Your task to perform on an android device: install app "Flipkart Online Shopping App" Image 0: 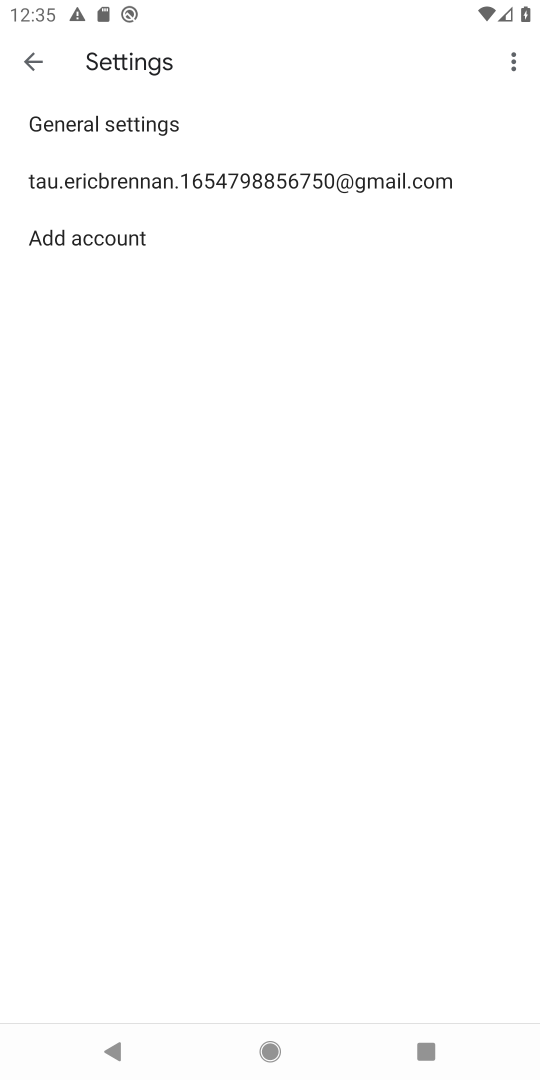
Step 0: press home button
Your task to perform on an android device: install app "Flipkart Online Shopping App" Image 1: 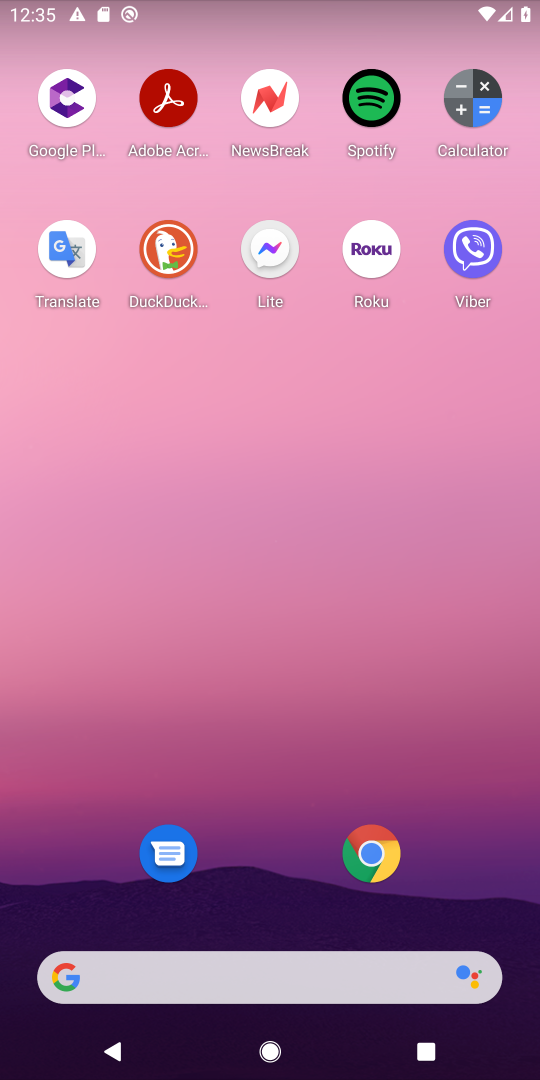
Step 1: drag from (337, 963) to (415, 34)
Your task to perform on an android device: install app "Flipkart Online Shopping App" Image 2: 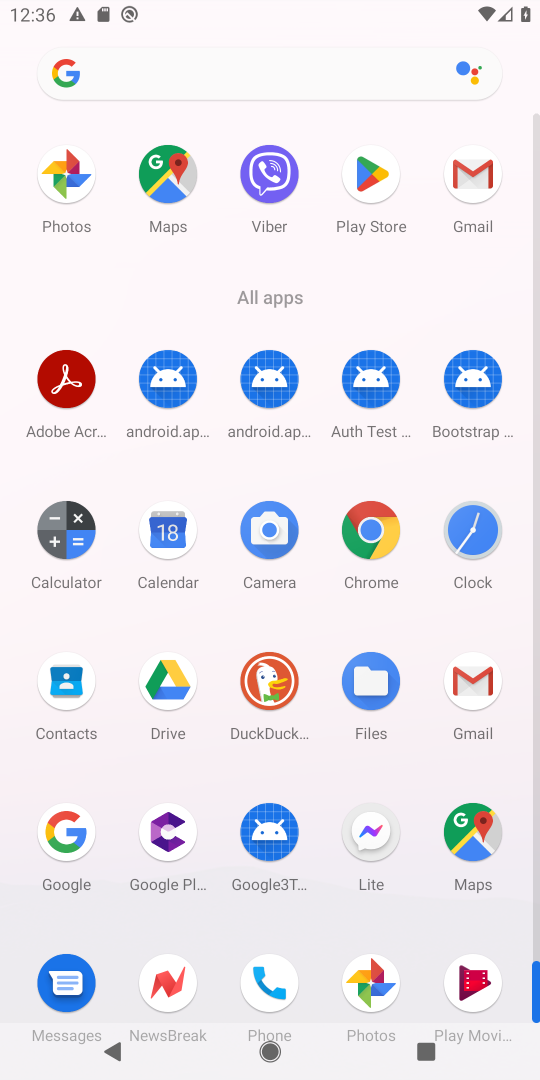
Step 2: click (388, 198)
Your task to perform on an android device: install app "Flipkart Online Shopping App" Image 3: 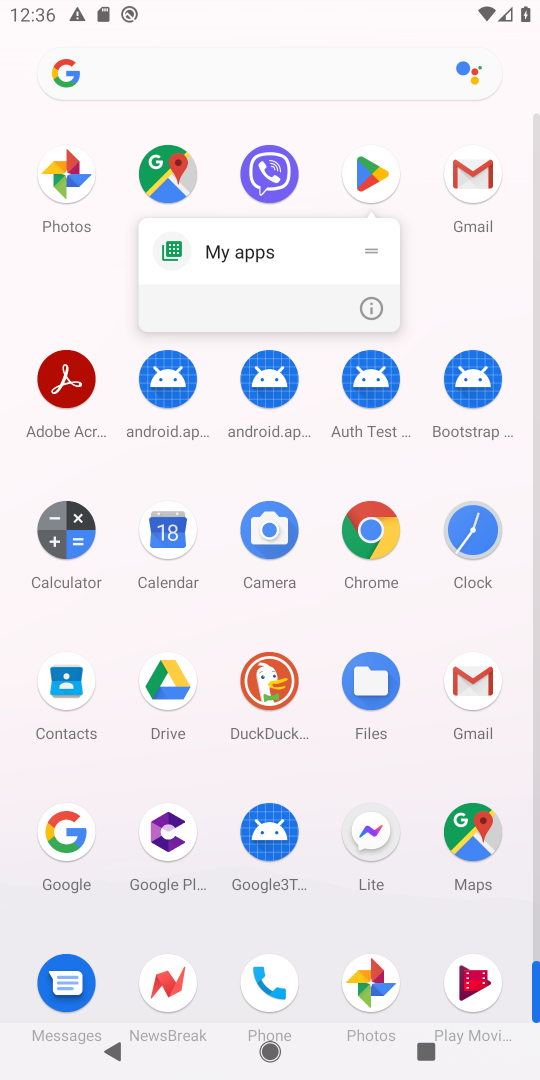
Step 3: click (392, 162)
Your task to perform on an android device: install app "Flipkart Online Shopping App" Image 4: 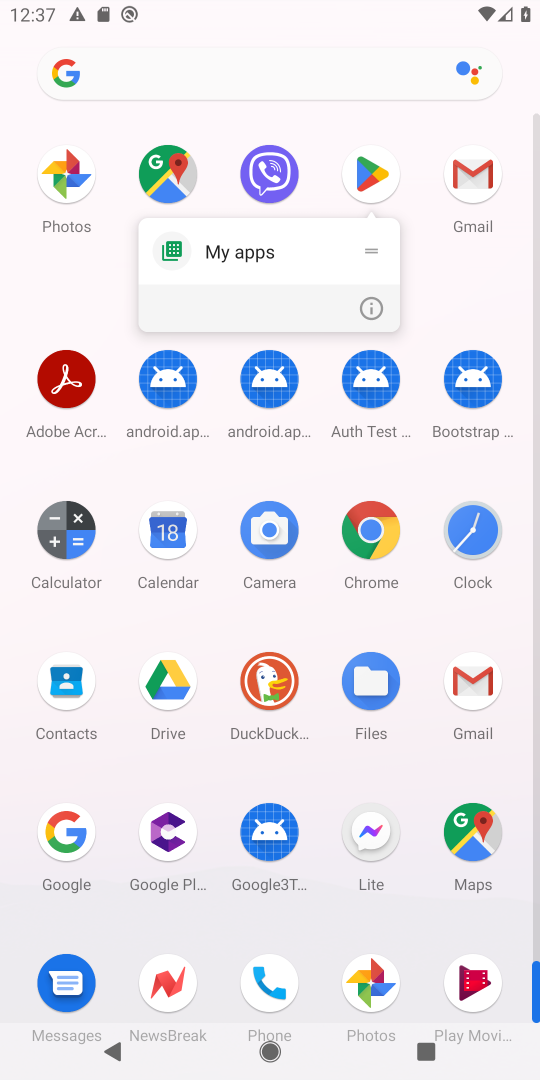
Step 4: click (373, 178)
Your task to perform on an android device: install app "Flipkart Online Shopping App" Image 5: 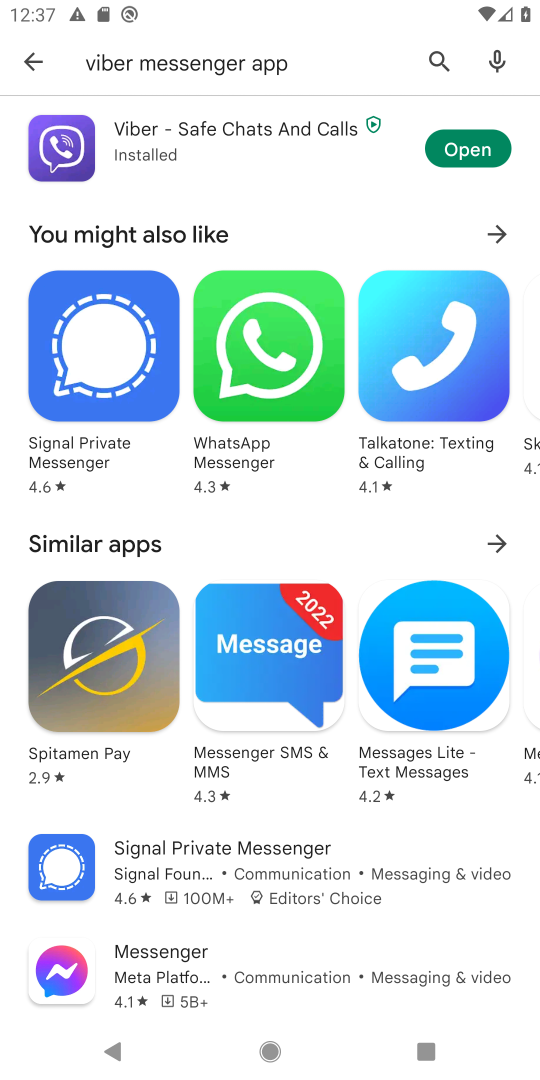
Step 5: click (43, 55)
Your task to perform on an android device: install app "Flipkart Online Shopping App" Image 6: 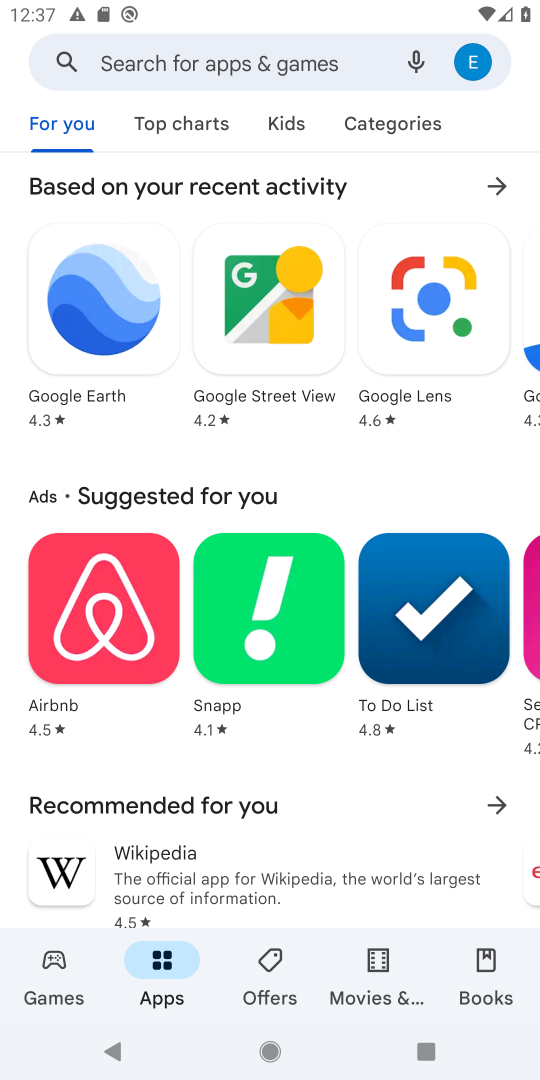
Step 6: click (217, 61)
Your task to perform on an android device: install app "Flipkart Online Shopping App" Image 7: 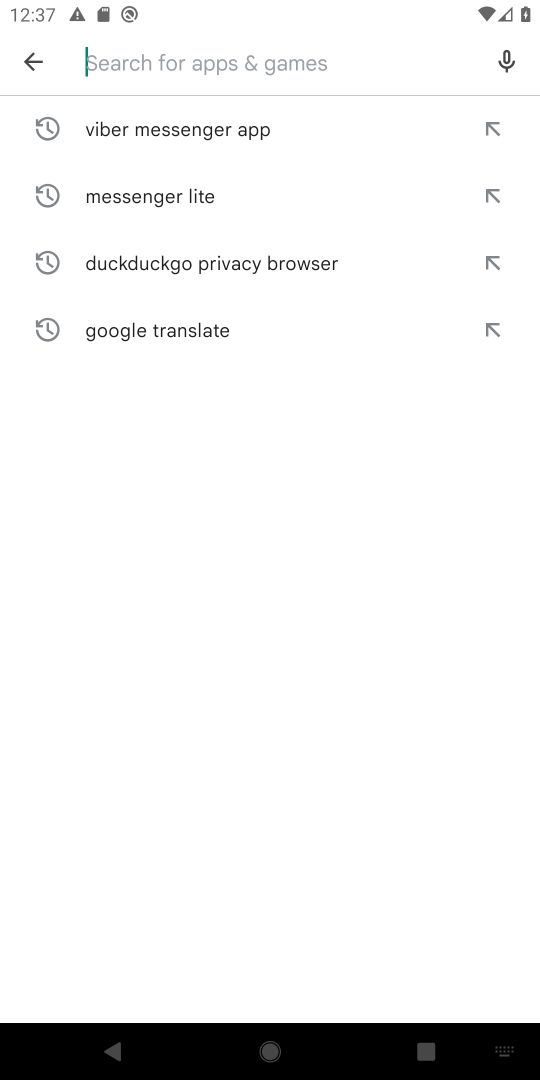
Step 7: type "Flipkart Online Shopping App"
Your task to perform on an android device: install app "Flipkart Online Shopping App" Image 8: 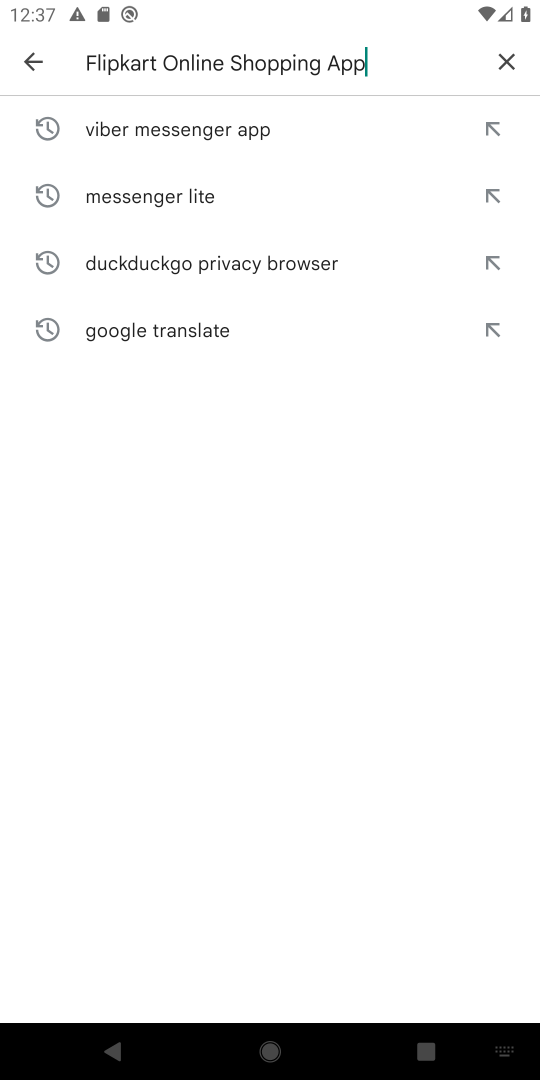
Step 8: type ""
Your task to perform on an android device: install app "Flipkart Online Shopping App" Image 9: 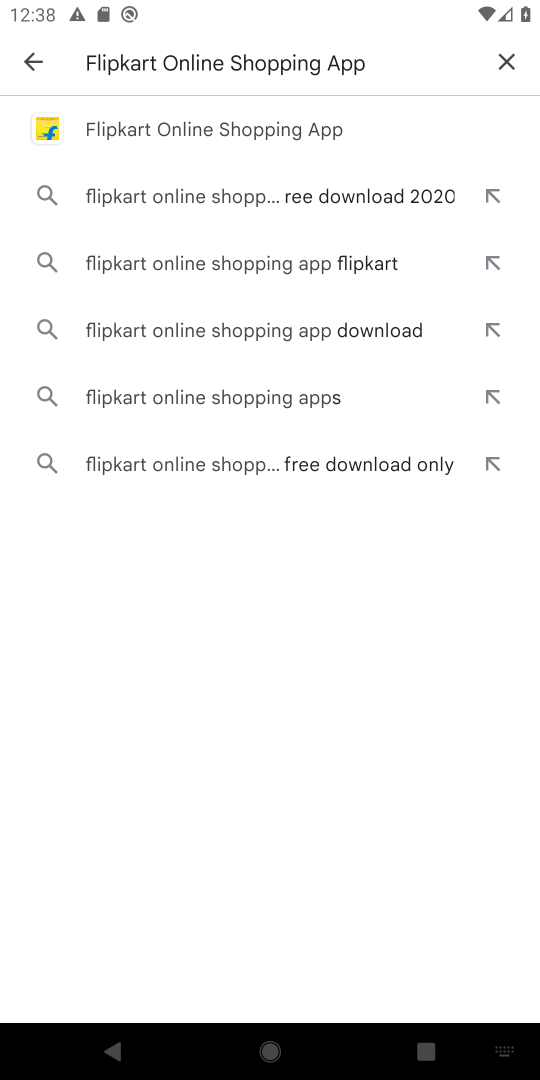
Step 9: click (294, 109)
Your task to perform on an android device: install app "Flipkart Online Shopping App" Image 10: 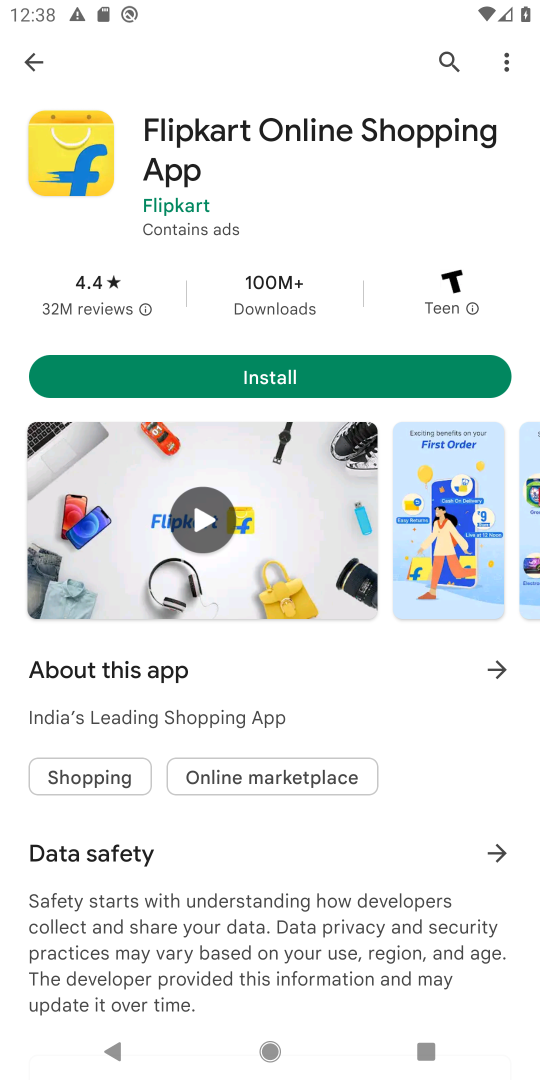
Step 10: click (298, 363)
Your task to perform on an android device: install app "Flipkart Online Shopping App" Image 11: 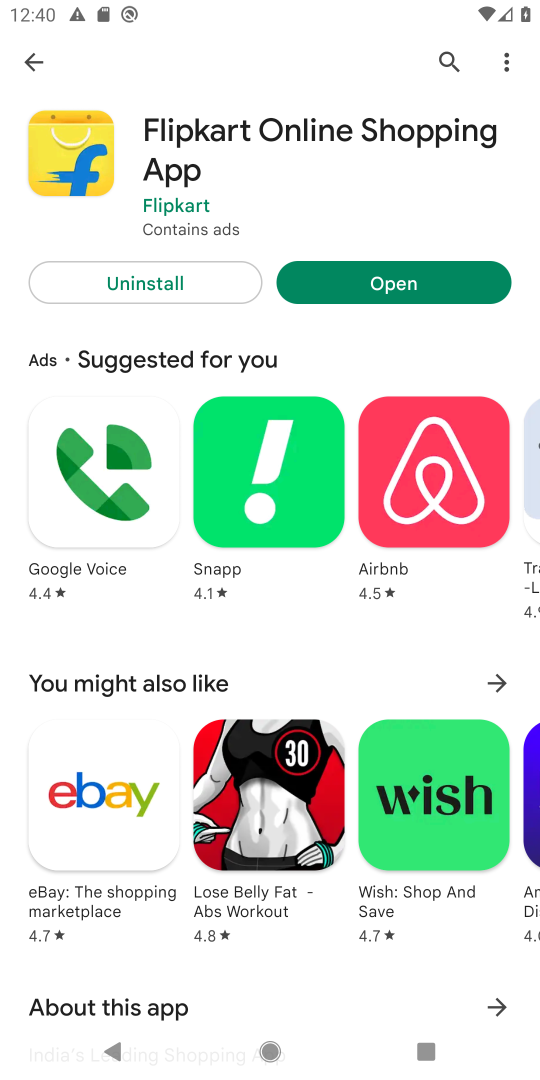
Step 11: task complete